Your task to perform on an android device: Add "razer kraken" to the cart on amazon Image 0: 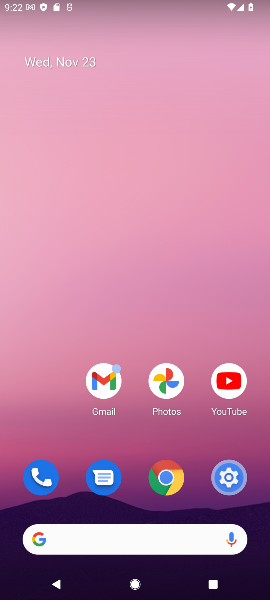
Step 0: click (141, 548)
Your task to perform on an android device: Add "razer kraken" to the cart on amazon Image 1: 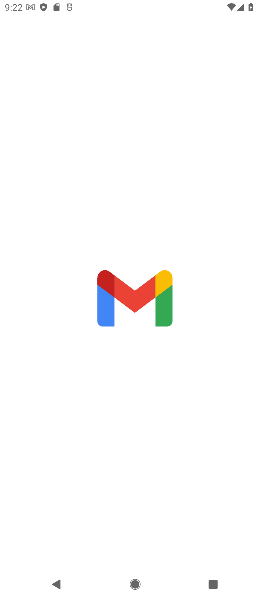
Step 1: press home button
Your task to perform on an android device: Add "razer kraken" to the cart on amazon Image 2: 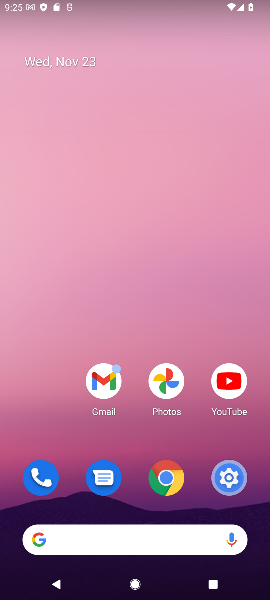
Step 2: click (133, 551)
Your task to perform on an android device: Add "razer kraken" to the cart on amazon Image 3: 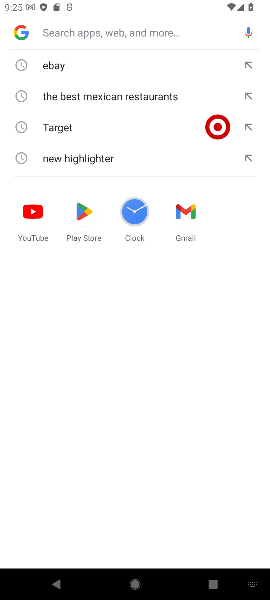
Step 3: type "amazon"
Your task to perform on an android device: Add "razer kraken" to the cart on amazon Image 4: 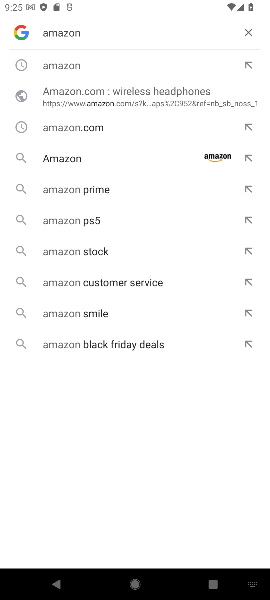
Step 4: click (78, 66)
Your task to perform on an android device: Add "razer kraken" to the cart on amazon Image 5: 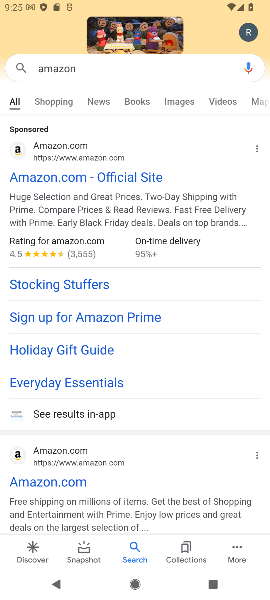
Step 5: click (64, 174)
Your task to perform on an android device: Add "razer kraken" to the cart on amazon Image 6: 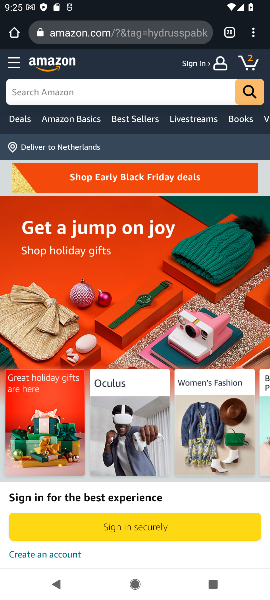
Step 6: task complete